Your task to perform on an android device: Open Yahoo.com Image 0: 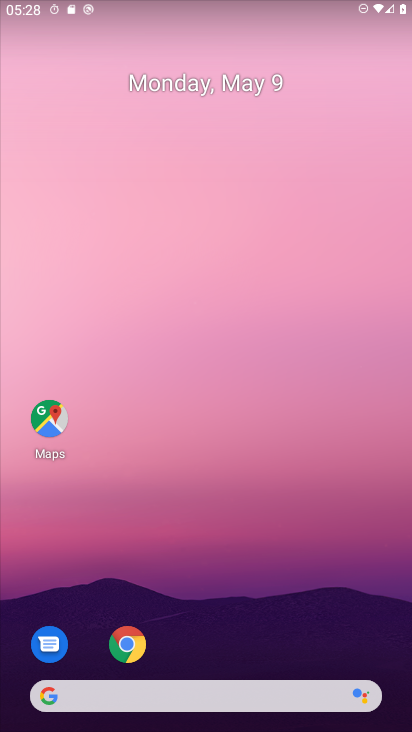
Step 0: drag from (242, 642) to (173, 31)
Your task to perform on an android device: Open Yahoo.com Image 1: 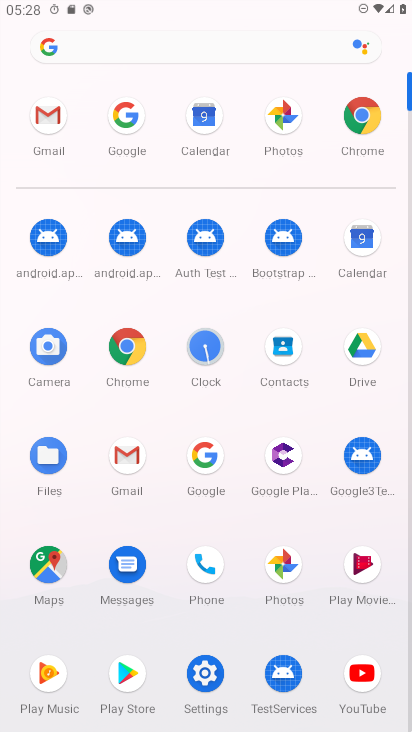
Step 1: click (360, 674)
Your task to perform on an android device: Open Yahoo.com Image 2: 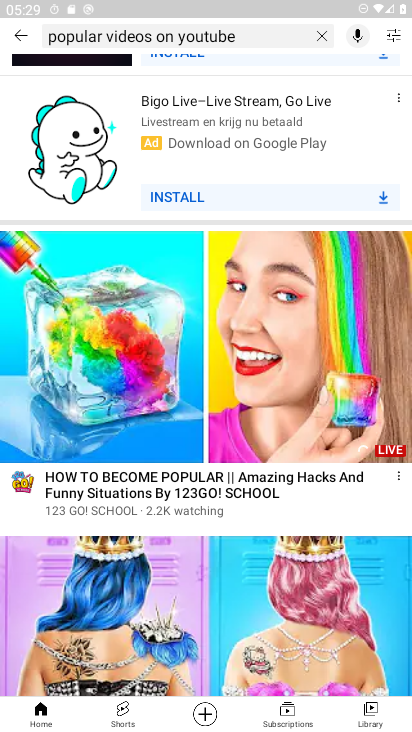
Step 2: press home button
Your task to perform on an android device: Open Yahoo.com Image 3: 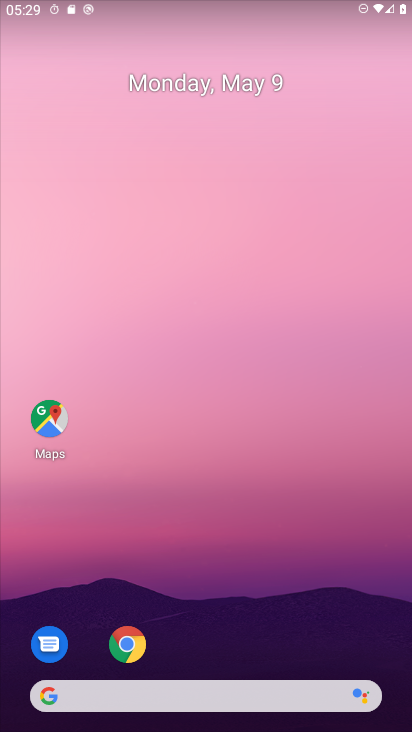
Step 3: click (122, 642)
Your task to perform on an android device: Open Yahoo.com Image 4: 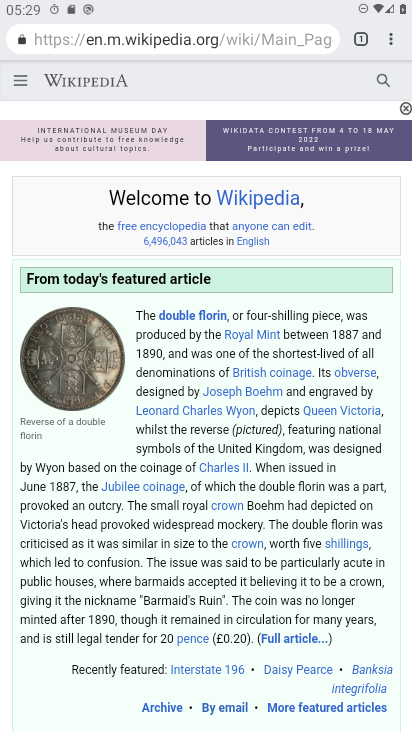
Step 4: click (303, 34)
Your task to perform on an android device: Open Yahoo.com Image 5: 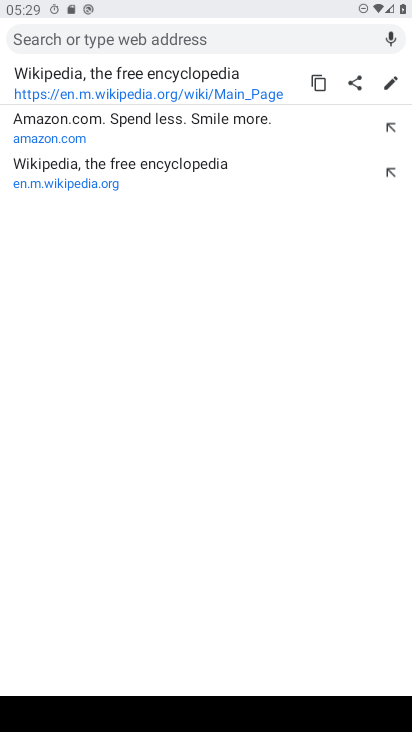
Step 5: type "Yahoo.com"
Your task to perform on an android device: Open Yahoo.com Image 6: 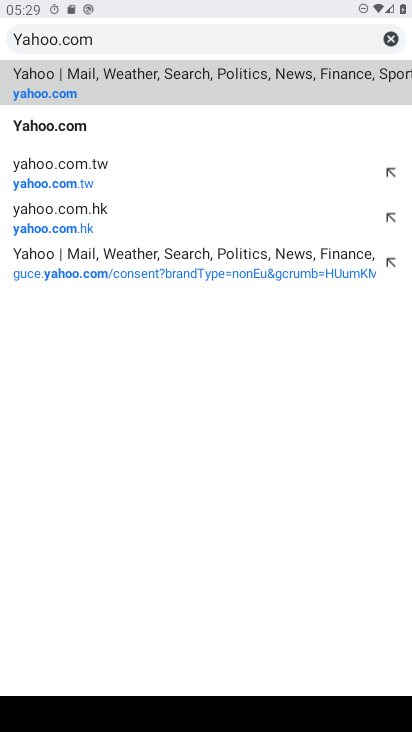
Step 6: click (80, 131)
Your task to perform on an android device: Open Yahoo.com Image 7: 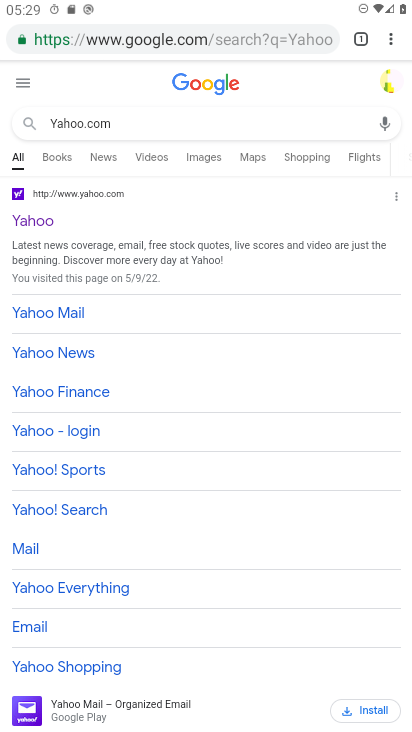
Step 7: click (24, 211)
Your task to perform on an android device: Open Yahoo.com Image 8: 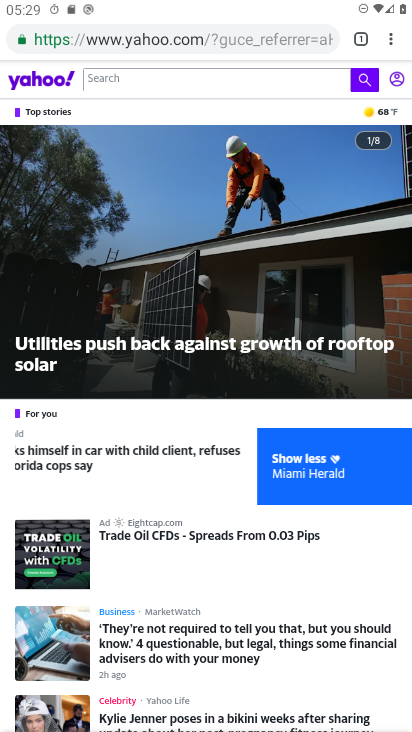
Step 8: task complete